Your task to perform on an android device: open a new tab in the chrome app Image 0: 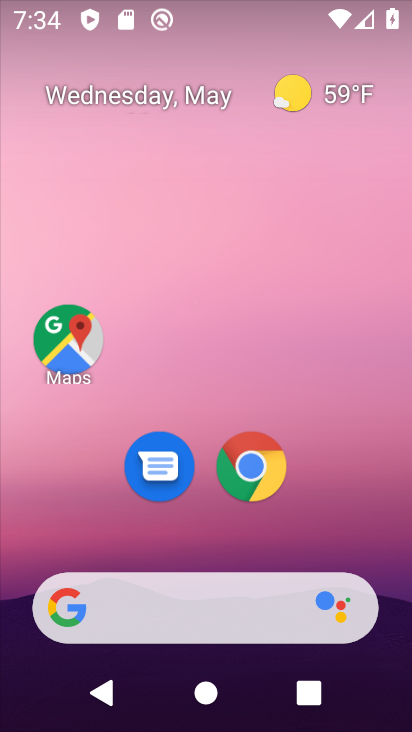
Step 0: drag from (318, 517) to (279, 175)
Your task to perform on an android device: open a new tab in the chrome app Image 1: 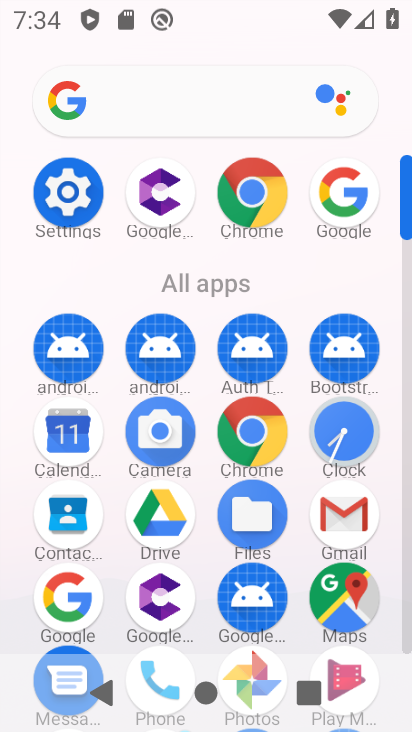
Step 1: click (242, 192)
Your task to perform on an android device: open a new tab in the chrome app Image 2: 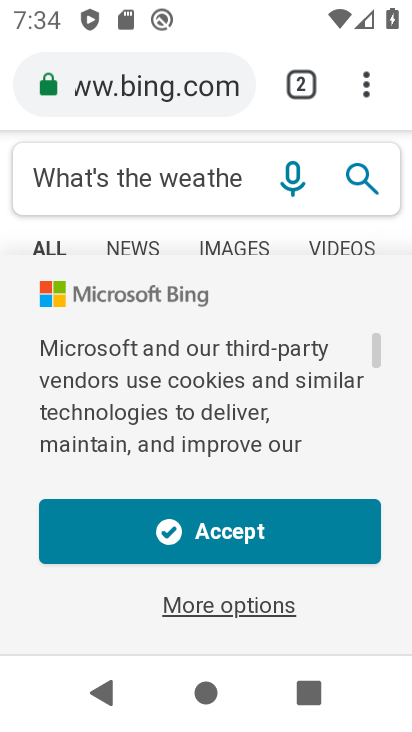
Step 2: click (357, 86)
Your task to perform on an android device: open a new tab in the chrome app Image 3: 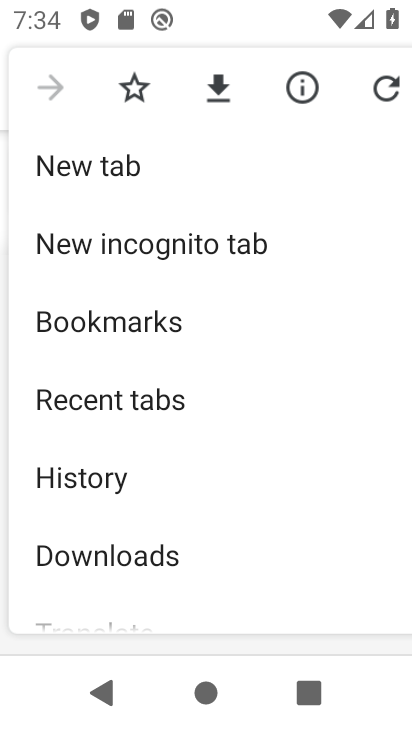
Step 3: click (110, 167)
Your task to perform on an android device: open a new tab in the chrome app Image 4: 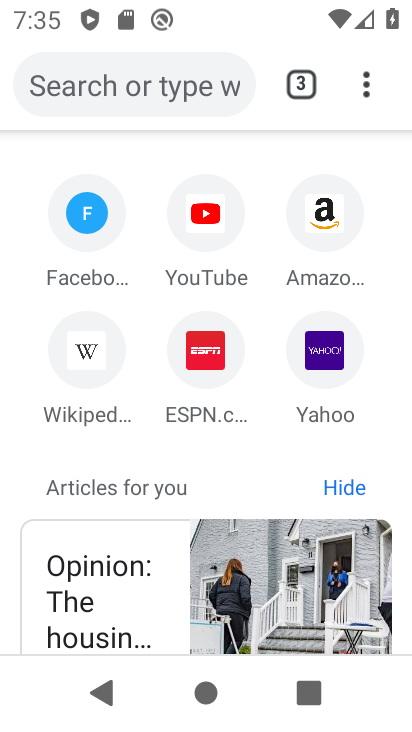
Step 4: task complete